Your task to perform on an android device: Go to privacy settings Image 0: 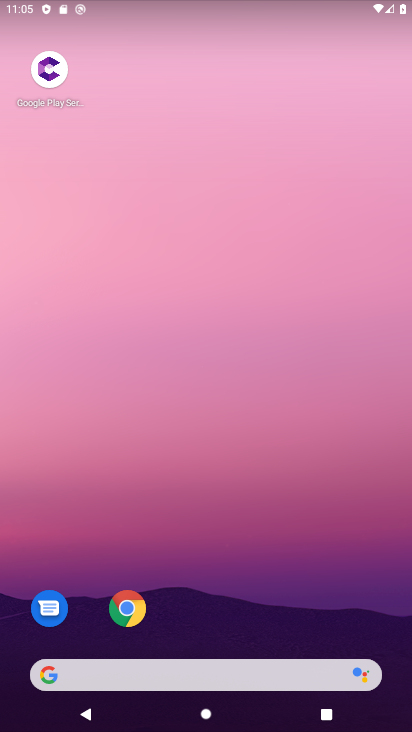
Step 0: drag from (230, 696) to (230, 580)
Your task to perform on an android device: Go to privacy settings Image 1: 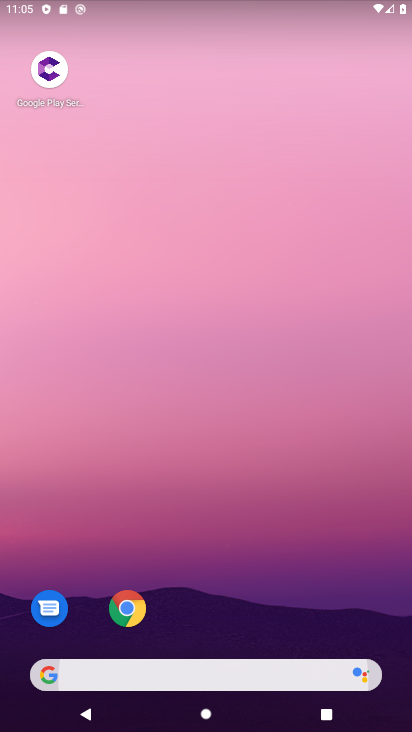
Step 1: drag from (230, 315) to (230, 189)
Your task to perform on an android device: Go to privacy settings Image 2: 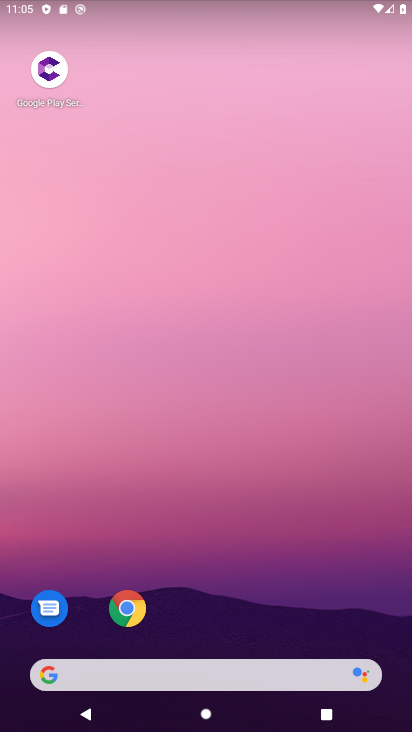
Step 2: drag from (241, 720) to (272, 61)
Your task to perform on an android device: Go to privacy settings Image 3: 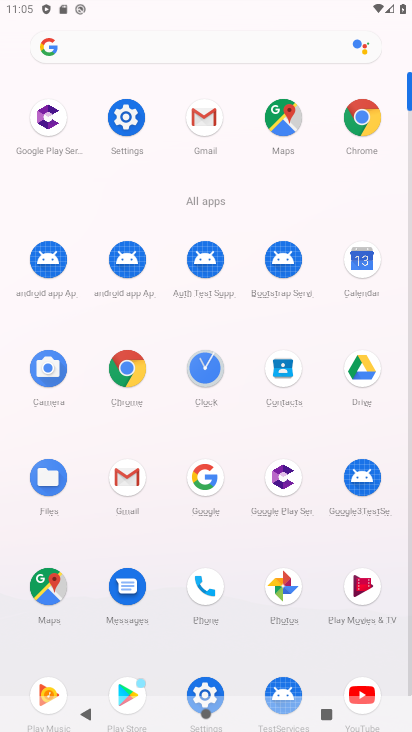
Step 3: click (123, 113)
Your task to perform on an android device: Go to privacy settings Image 4: 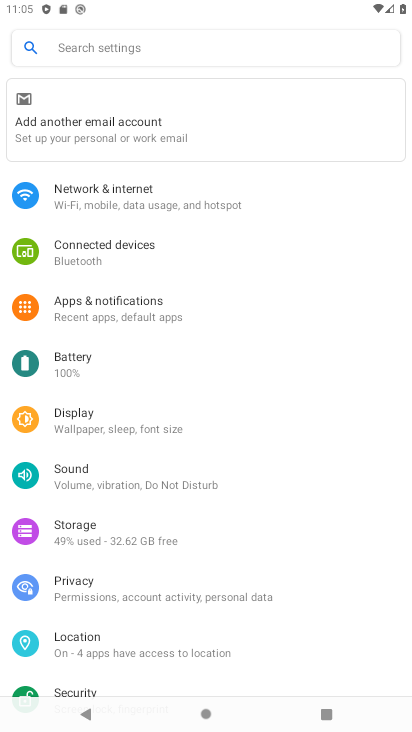
Step 4: click (72, 584)
Your task to perform on an android device: Go to privacy settings Image 5: 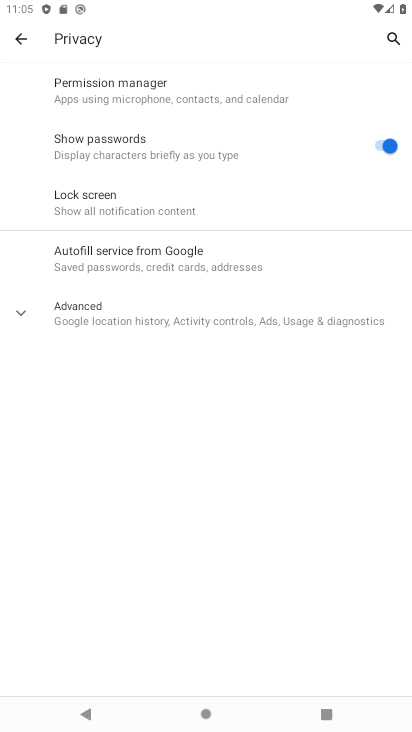
Step 5: task complete